Your task to perform on an android device: toggle location history Image 0: 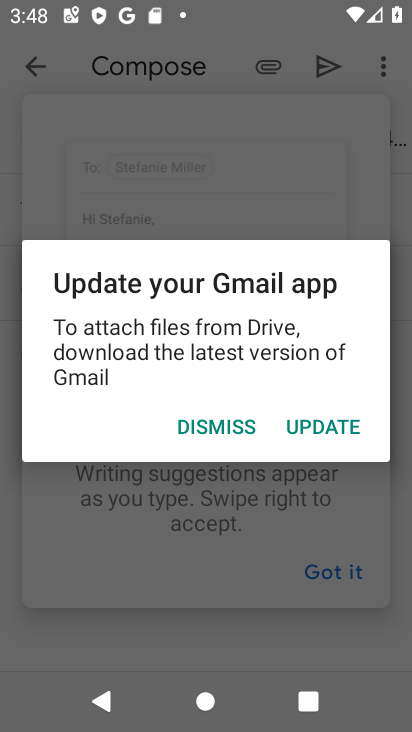
Step 0: press home button
Your task to perform on an android device: toggle location history Image 1: 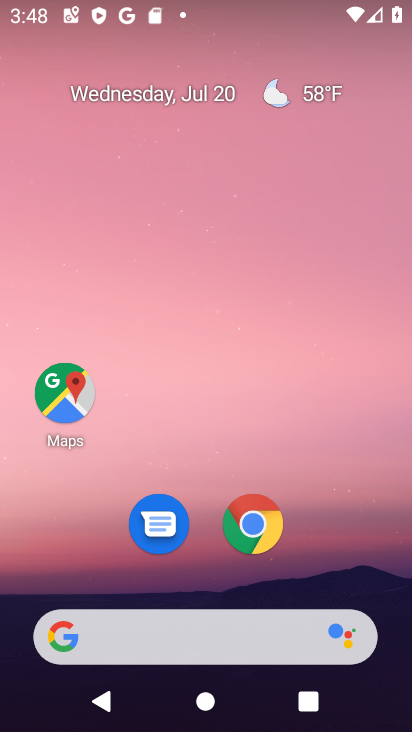
Step 1: drag from (300, 562) to (336, 46)
Your task to perform on an android device: toggle location history Image 2: 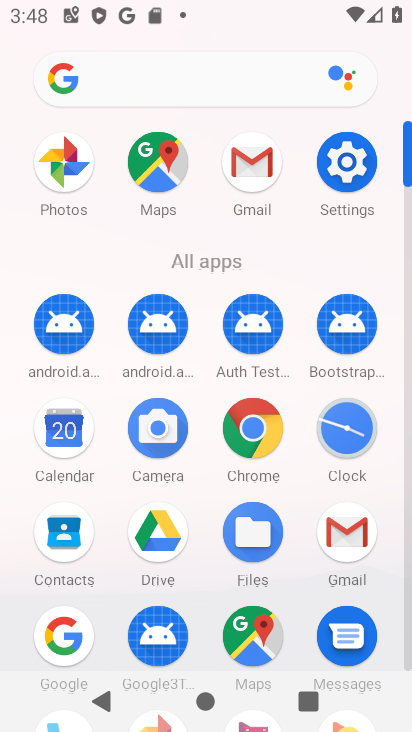
Step 2: click (348, 176)
Your task to perform on an android device: toggle location history Image 3: 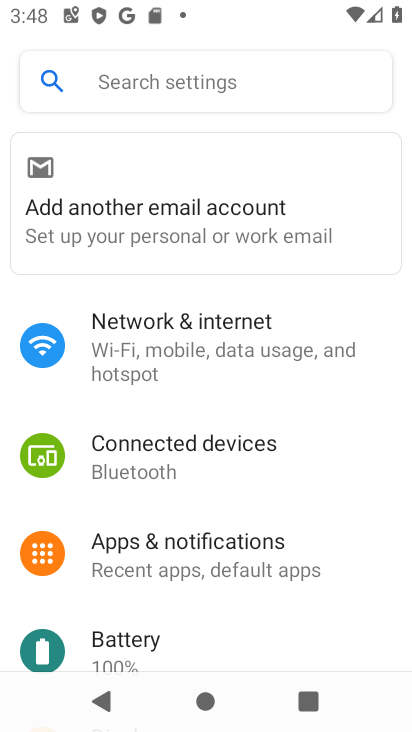
Step 3: drag from (223, 631) to (307, 129)
Your task to perform on an android device: toggle location history Image 4: 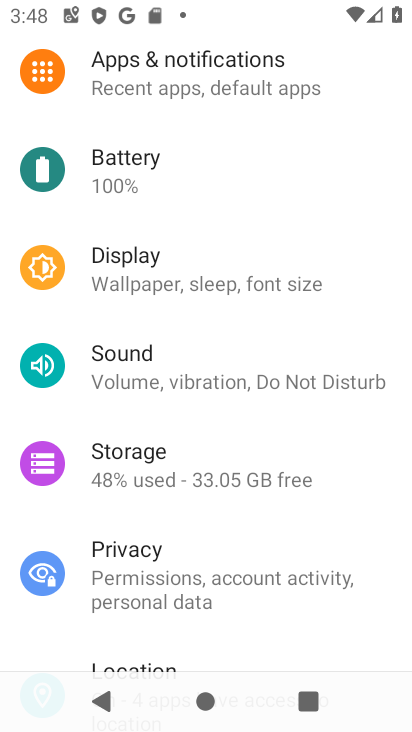
Step 4: drag from (228, 513) to (244, 135)
Your task to perform on an android device: toggle location history Image 5: 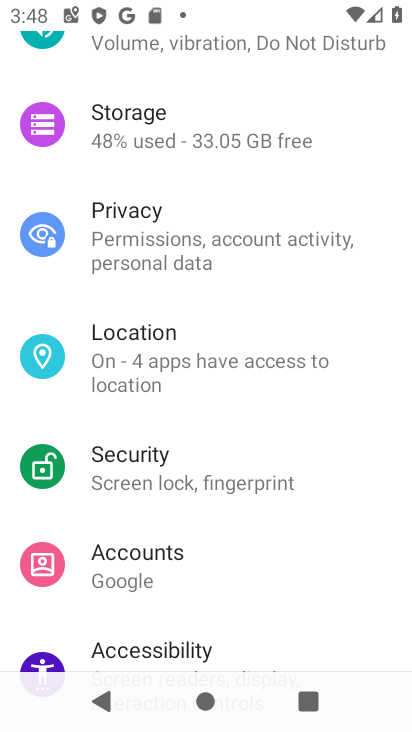
Step 5: click (219, 340)
Your task to perform on an android device: toggle location history Image 6: 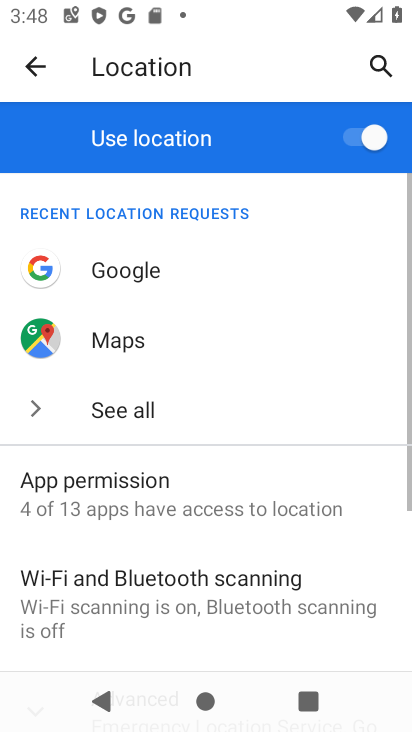
Step 6: drag from (200, 542) to (218, 232)
Your task to perform on an android device: toggle location history Image 7: 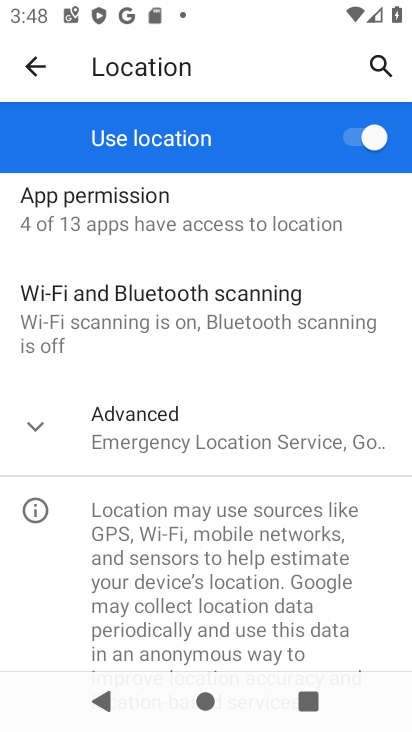
Step 7: click (34, 428)
Your task to perform on an android device: toggle location history Image 8: 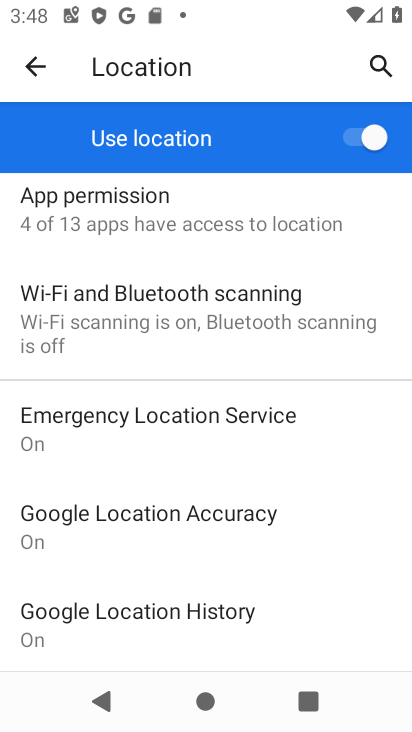
Step 8: click (225, 613)
Your task to perform on an android device: toggle location history Image 9: 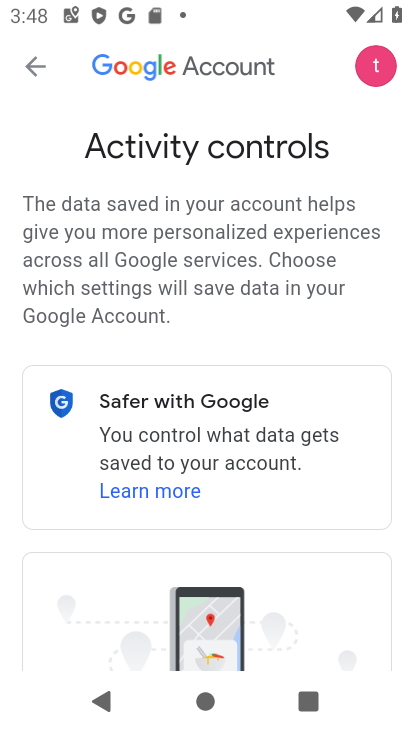
Step 9: drag from (279, 620) to (317, 171)
Your task to perform on an android device: toggle location history Image 10: 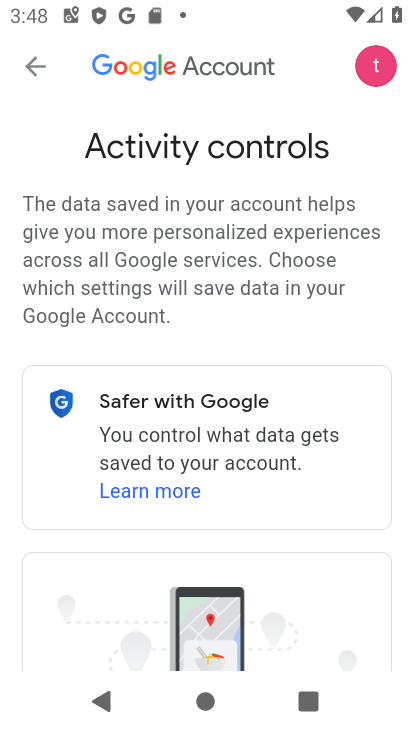
Step 10: drag from (164, 568) to (203, 224)
Your task to perform on an android device: toggle location history Image 11: 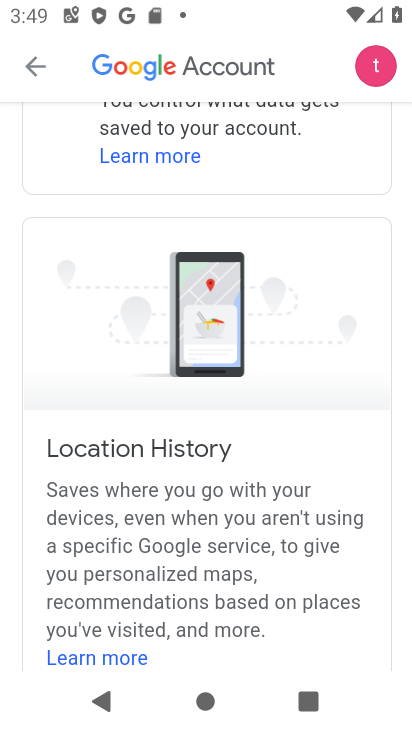
Step 11: drag from (203, 394) to (205, 166)
Your task to perform on an android device: toggle location history Image 12: 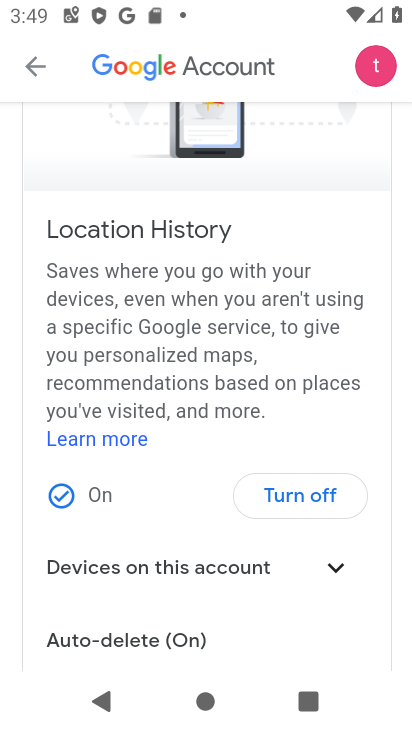
Step 12: click (296, 491)
Your task to perform on an android device: toggle location history Image 13: 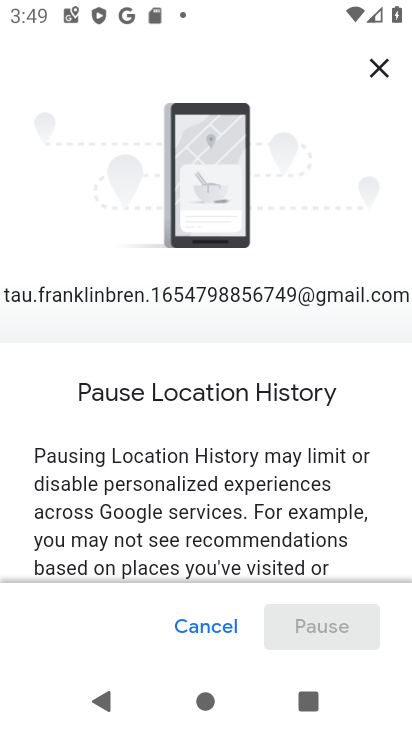
Step 13: drag from (262, 524) to (281, 148)
Your task to perform on an android device: toggle location history Image 14: 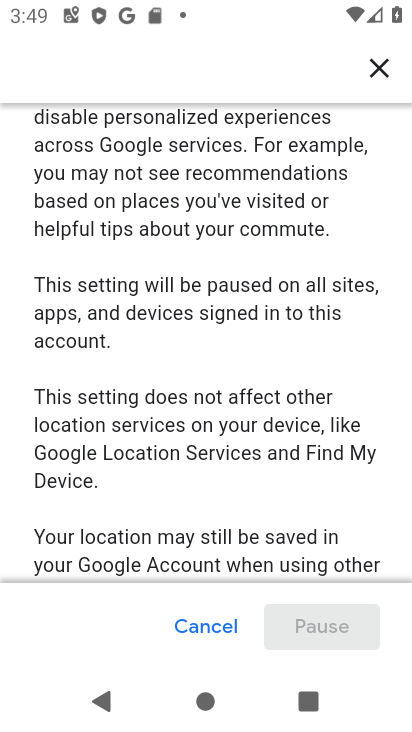
Step 14: drag from (269, 496) to (290, 185)
Your task to perform on an android device: toggle location history Image 15: 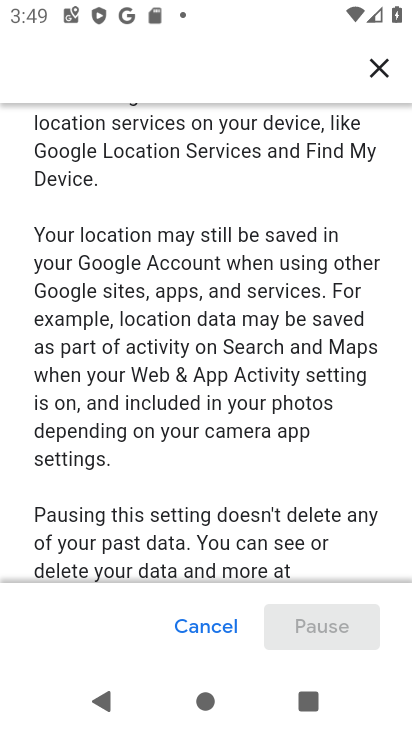
Step 15: drag from (274, 425) to (298, 126)
Your task to perform on an android device: toggle location history Image 16: 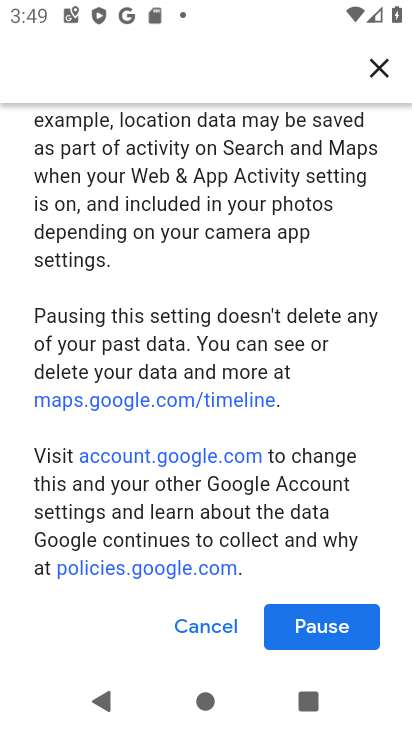
Step 16: click (329, 629)
Your task to perform on an android device: toggle location history Image 17: 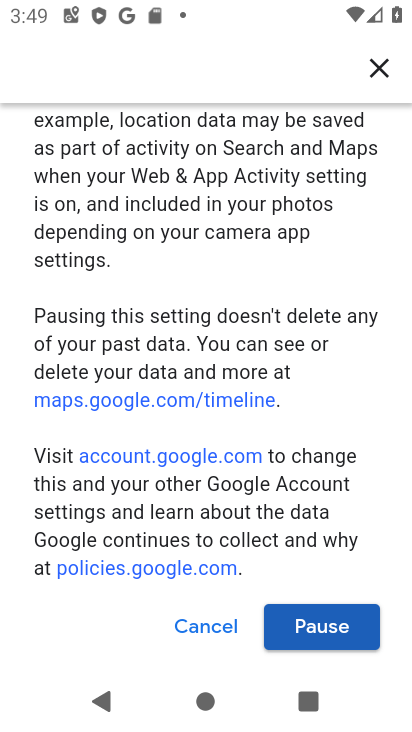
Step 17: click (360, 635)
Your task to perform on an android device: toggle location history Image 18: 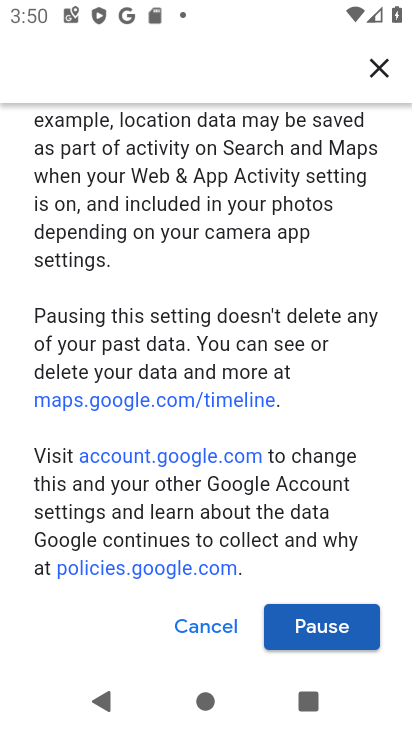
Step 18: click (360, 623)
Your task to perform on an android device: toggle location history Image 19: 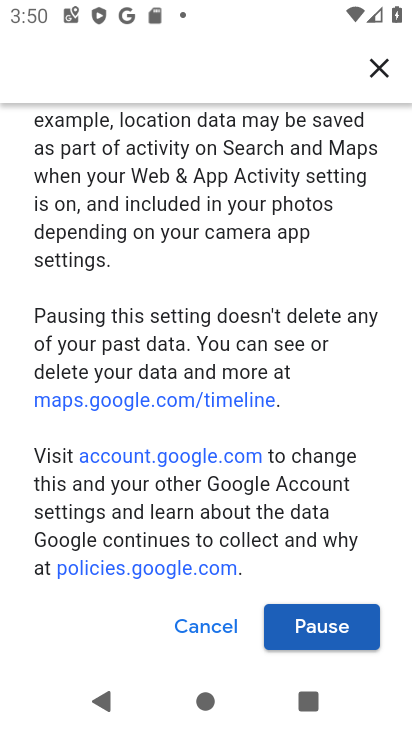
Step 19: click (348, 629)
Your task to perform on an android device: toggle location history Image 20: 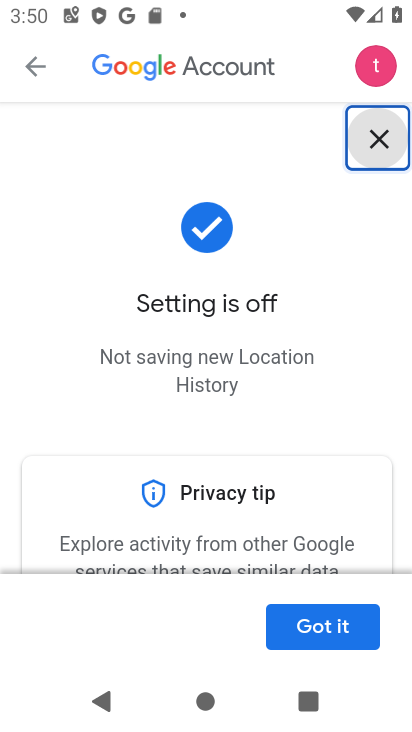
Step 20: click (345, 621)
Your task to perform on an android device: toggle location history Image 21: 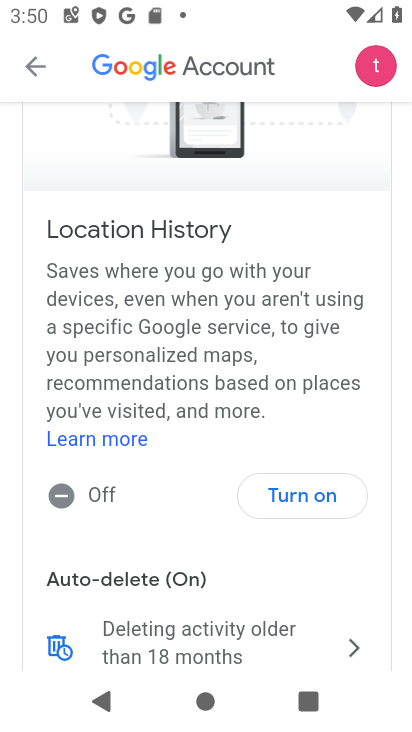
Step 21: task complete